Your task to perform on an android device: toggle improve location accuracy Image 0: 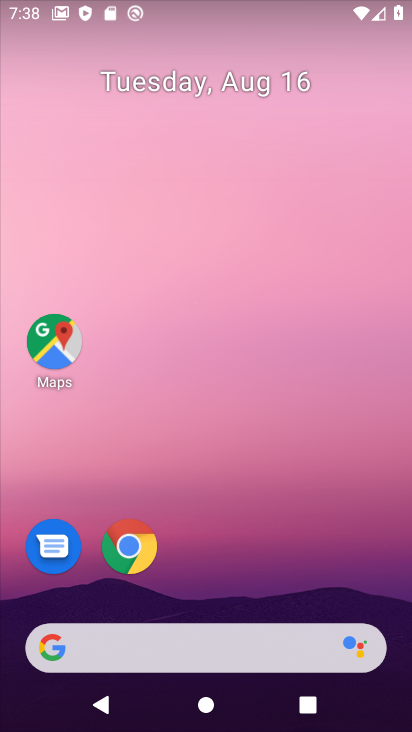
Step 0: drag from (214, 457) to (239, 153)
Your task to perform on an android device: toggle improve location accuracy Image 1: 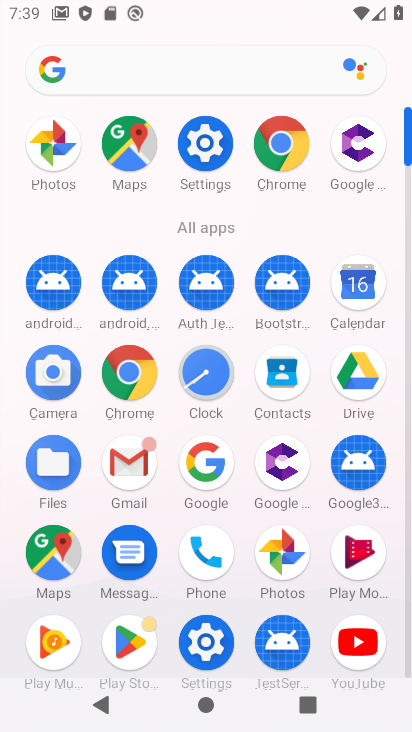
Step 1: click (195, 150)
Your task to perform on an android device: toggle improve location accuracy Image 2: 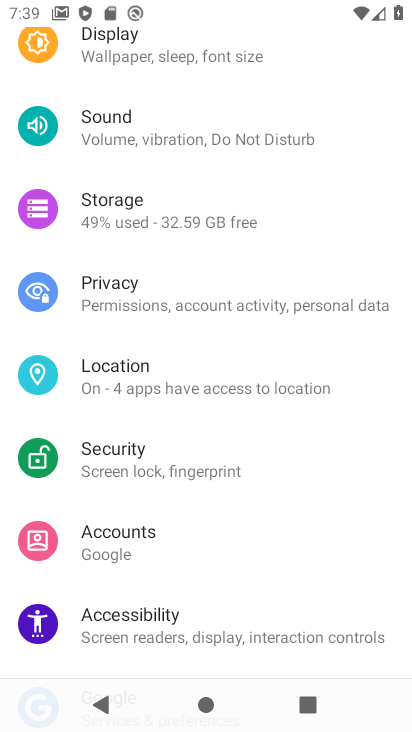
Step 2: drag from (240, 586) to (244, 359)
Your task to perform on an android device: toggle improve location accuracy Image 3: 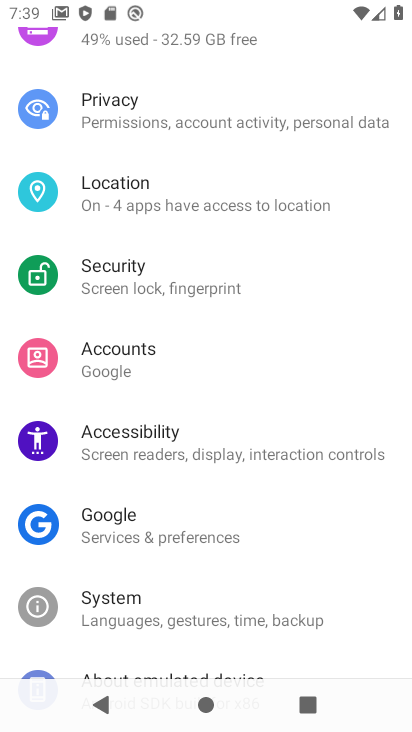
Step 3: click (155, 196)
Your task to perform on an android device: toggle improve location accuracy Image 4: 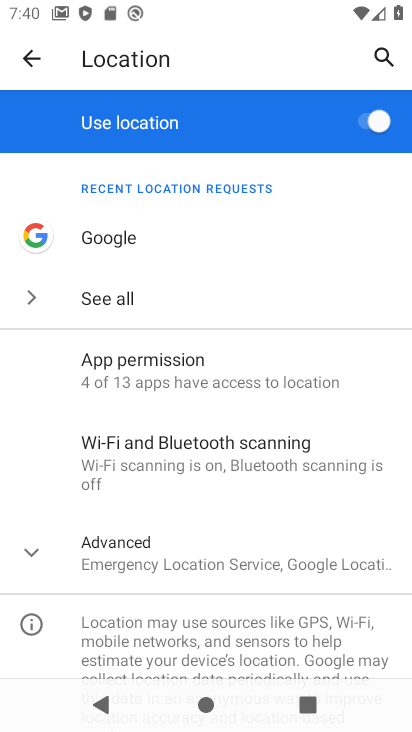
Step 4: click (136, 563)
Your task to perform on an android device: toggle improve location accuracy Image 5: 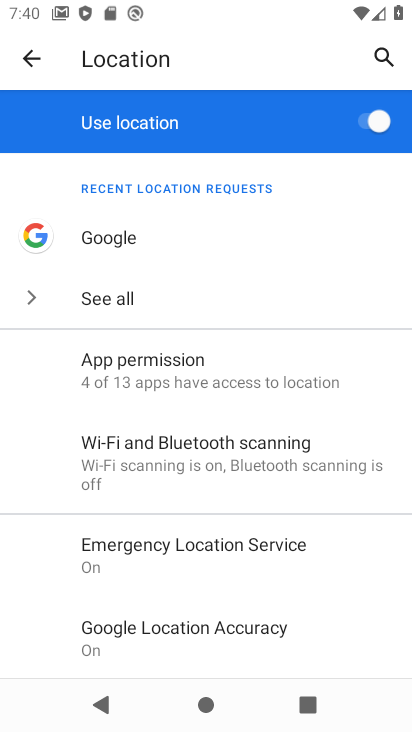
Step 5: drag from (222, 600) to (240, 429)
Your task to perform on an android device: toggle improve location accuracy Image 6: 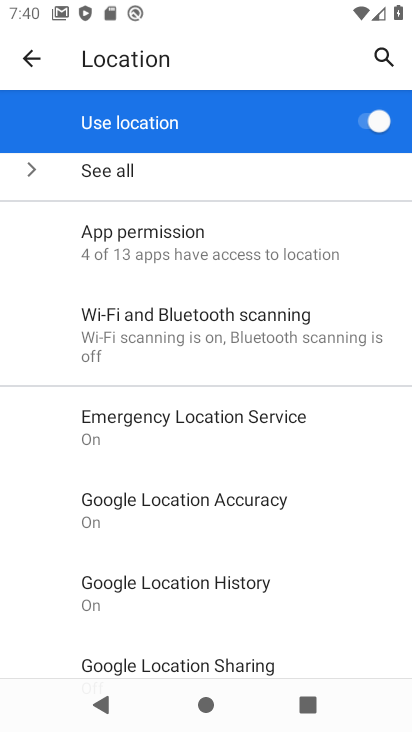
Step 6: click (224, 510)
Your task to perform on an android device: toggle improve location accuracy Image 7: 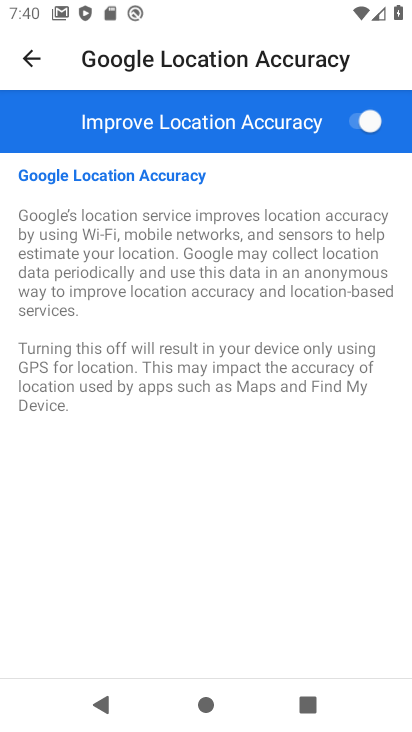
Step 7: click (353, 125)
Your task to perform on an android device: toggle improve location accuracy Image 8: 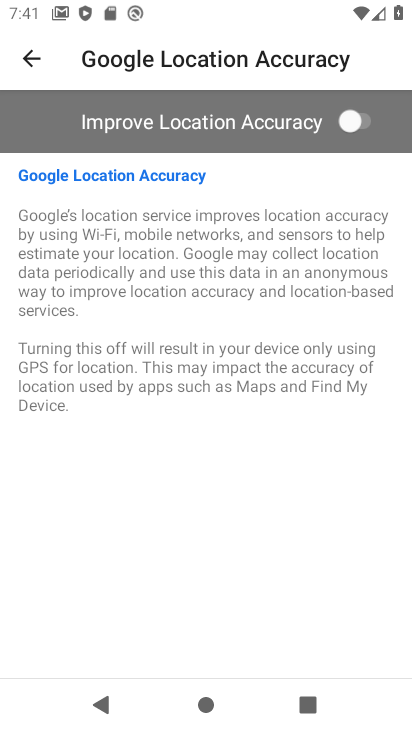
Step 8: task complete